Your task to perform on an android device: Open Amazon Image 0: 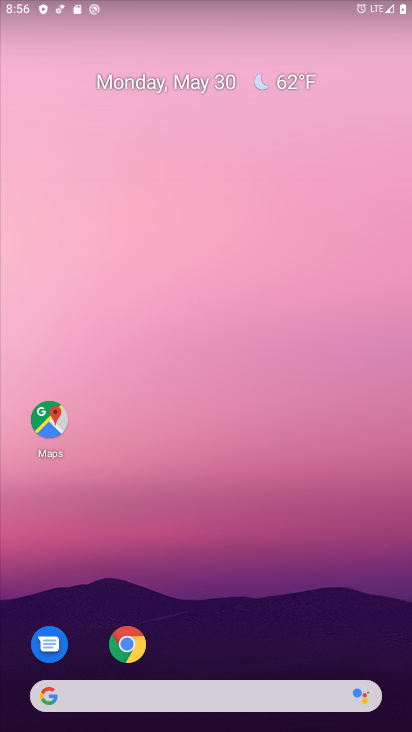
Step 0: click (383, 657)
Your task to perform on an android device: Open Amazon Image 1: 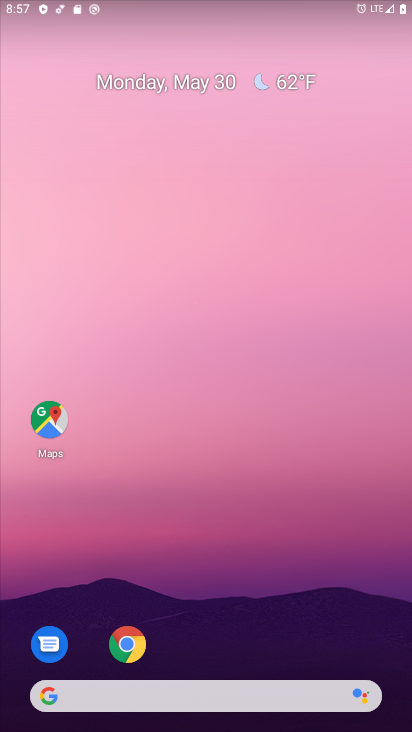
Step 1: click (130, 642)
Your task to perform on an android device: Open Amazon Image 2: 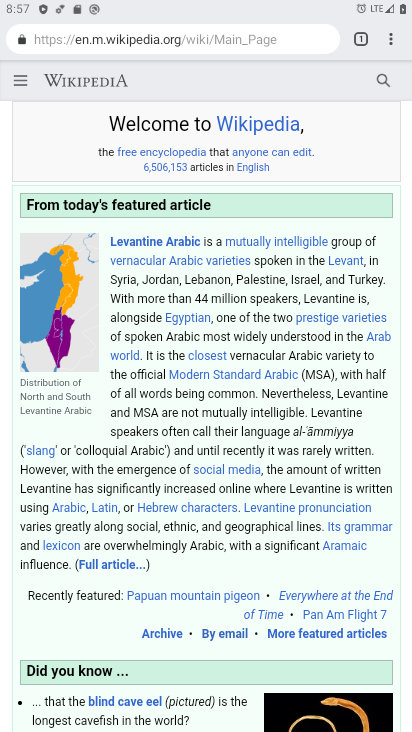
Step 2: click (310, 33)
Your task to perform on an android device: Open Amazon Image 3: 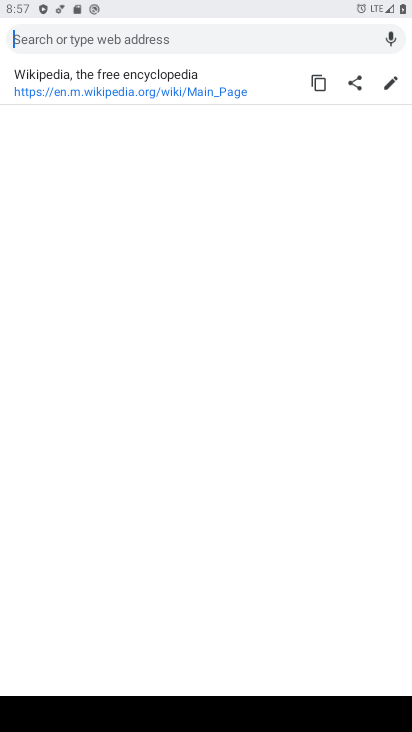
Step 3: type "amazon"
Your task to perform on an android device: Open Amazon Image 4: 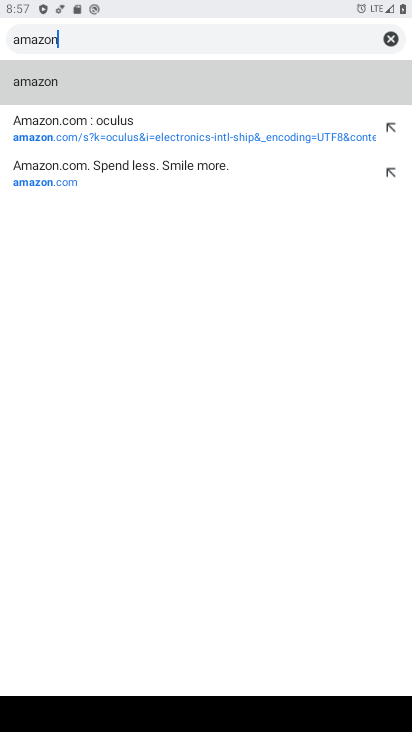
Step 4: click (56, 81)
Your task to perform on an android device: Open Amazon Image 5: 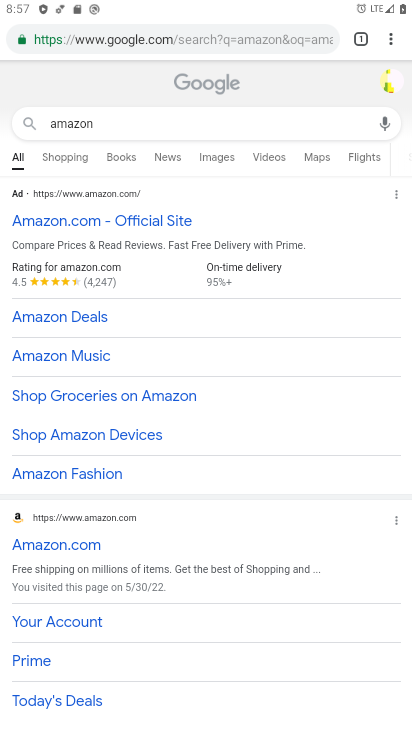
Step 5: click (83, 217)
Your task to perform on an android device: Open Amazon Image 6: 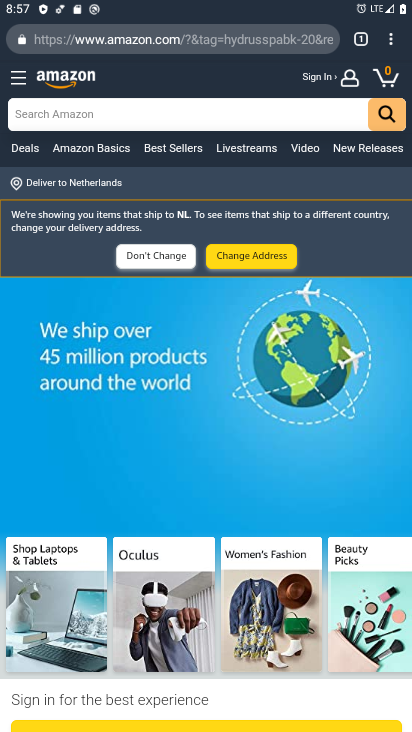
Step 6: task complete